Your task to perform on an android device: Open Google Chrome Image 0: 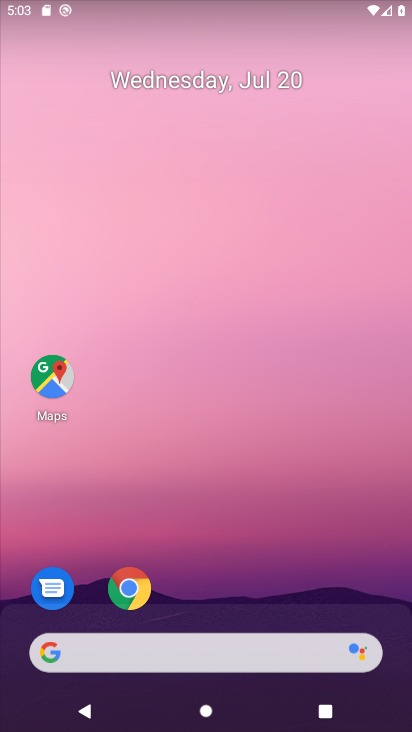
Step 0: click (136, 590)
Your task to perform on an android device: Open Google Chrome Image 1: 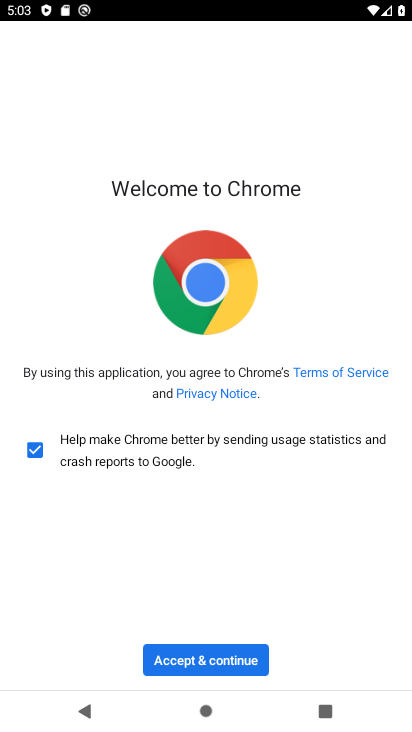
Step 1: click (207, 667)
Your task to perform on an android device: Open Google Chrome Image 2: 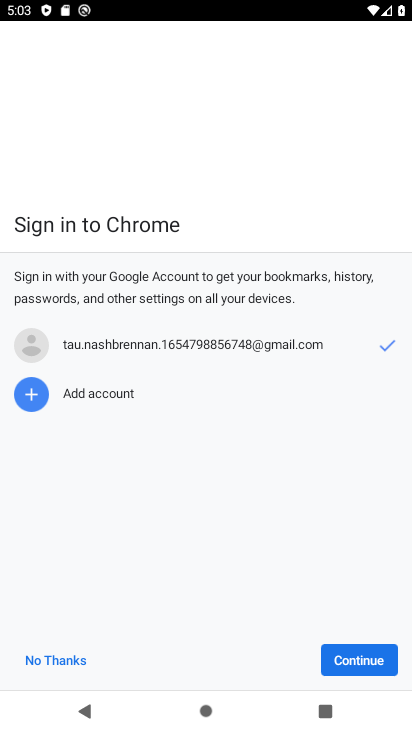
Step 2: click (321, 670)
Your task to perform on an android device: Open Google Chrome Image 3: 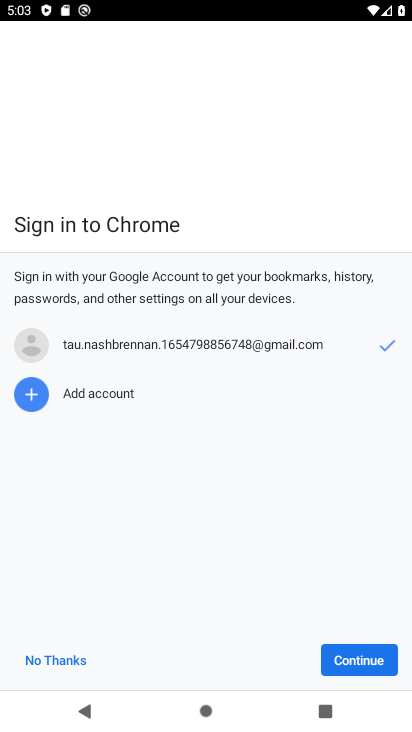
Step 3: click (334, 653)
Your task to perform on an android device: Open Google Chrome Image 4: 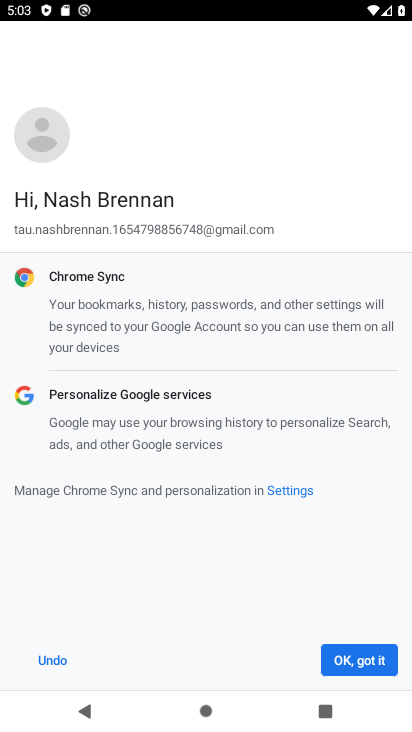
Step 4: click (371, 660)
Your task to perform on an android device: Open Google Chrome Image 5: 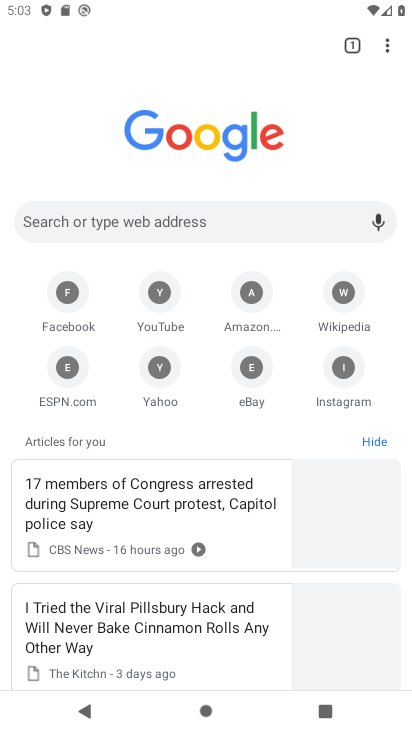
Step 5: task complete